Your task to perform on an android device: Search for Italian restaurants on Maps Image 0: 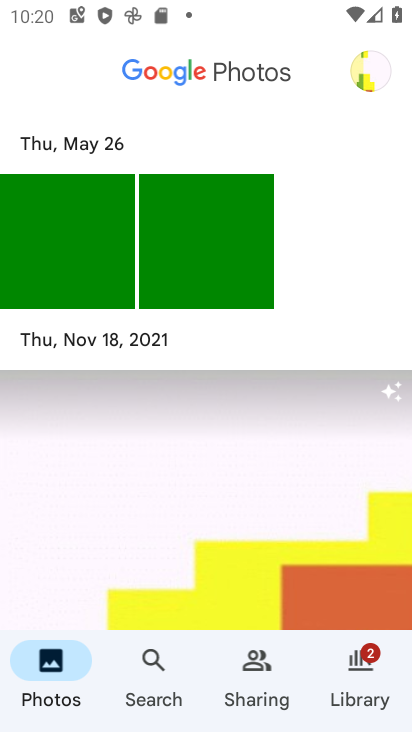
Step 0: press home button
Your task to perform on an android device: Search for Italian restaurants on Maps Image 1: 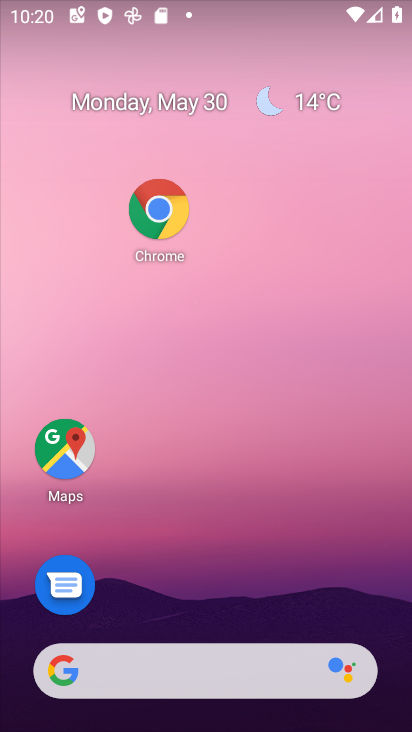
Step 1: drag from (225, 525) to (270, 149)
Your task to perform on an android device: Search for Italian restaurants on Maps Image 2: 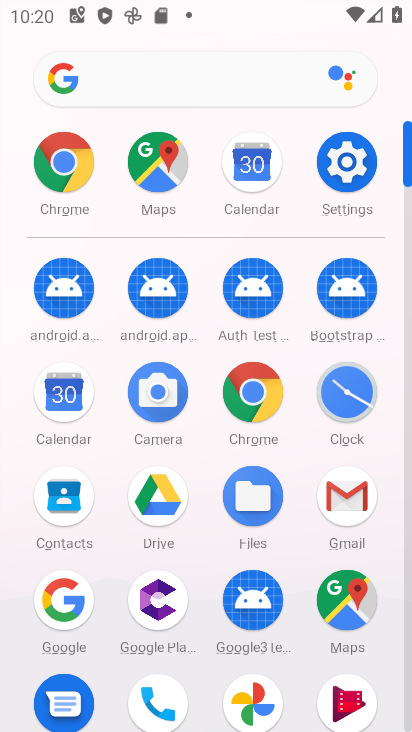
Step 2: click (350, 615)
Your task to perform on an android device: Search for Italian restaurants on Maps Image 3: 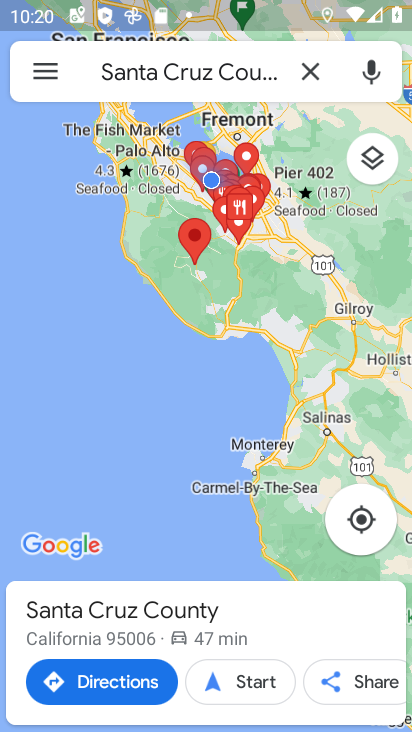
Step 3: click (305, 61)
Your task to perform on an android device: Search for Italian restaurants on Maps Image 4: 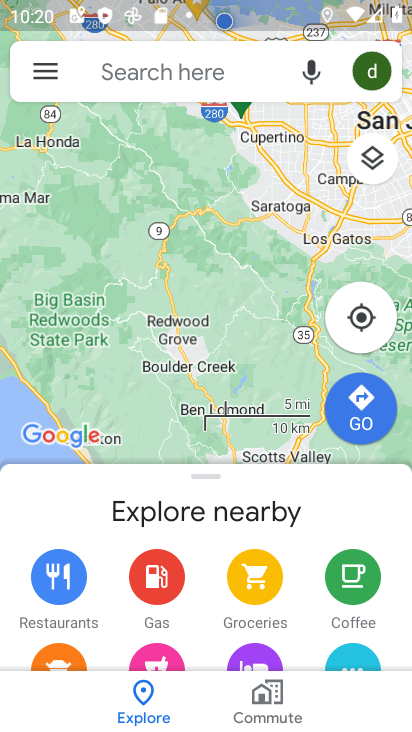
Step 4: click (170, 56)
Your task to perform on an android device: Search for Italian restaurants on Maps Image 5: 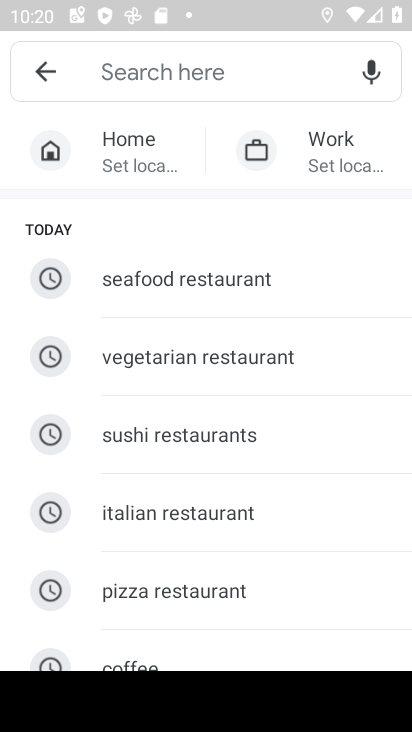
Step 5: click (138, 517)
Your task to perform on an android device: Search for Italian restaurants on Maps Image 6: 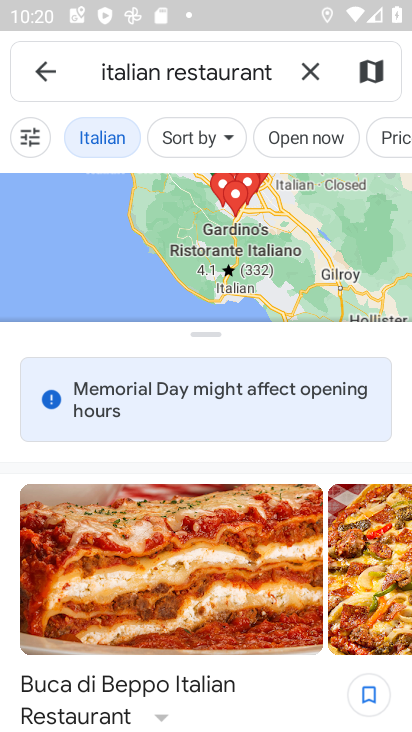
Step 6: task complete